Your task to perform on an android device: check the backup settings in the google photos Image 0: 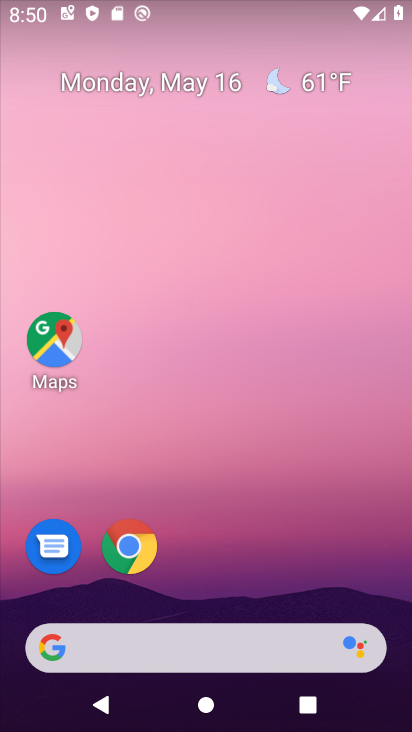
Step 0: drag from (297, 567) to (230, 129)
Your task to perform on an android device: check the backup settings in the google photos Image 1: 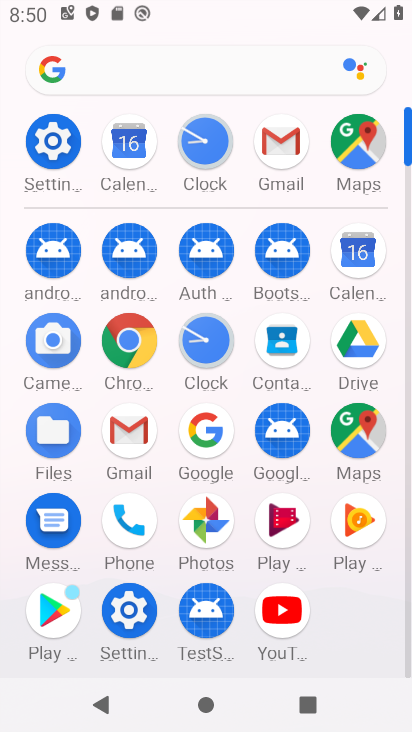
Step 1: click (214, 545)
Your task to perform on an android device: check the backup settings in the google photos Image 2: 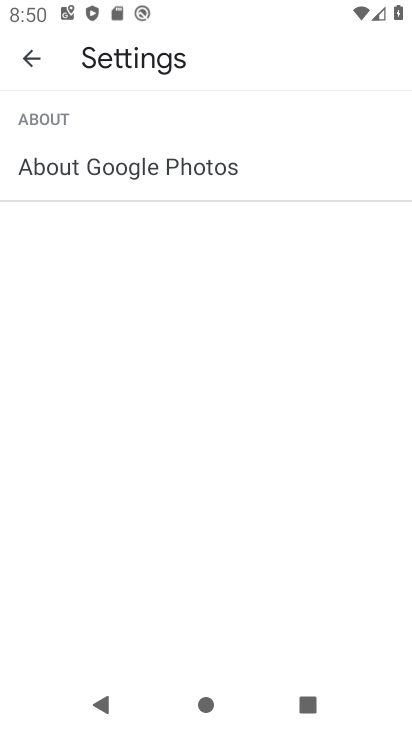
Step 2: click (31, 63)
Your task to perform on an android device: check the backup settings in the google photos Image 3: 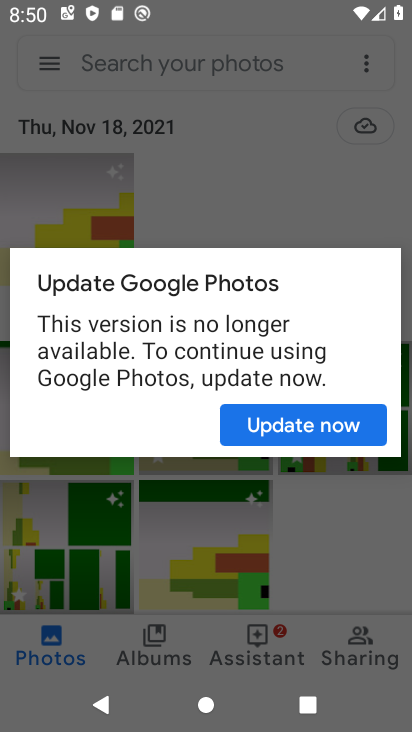
Step 3: click (297, 430)
Your task to perform on an android device: check the backup settings in the google photos Image 4: 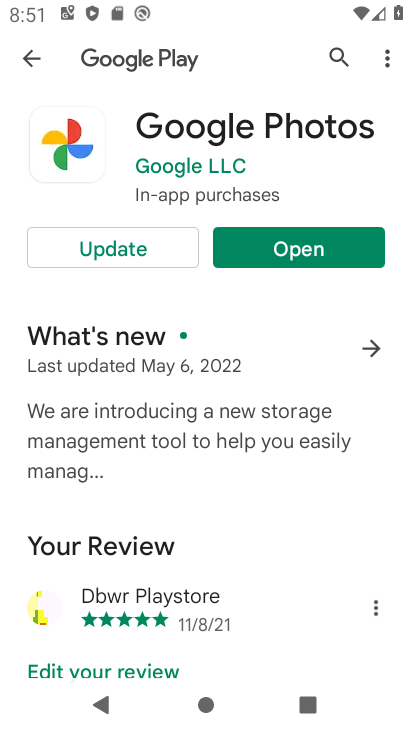
Step 4: click (263, 266)
Your task to perform on an android device: check the backup settings in the google photos Image 5: 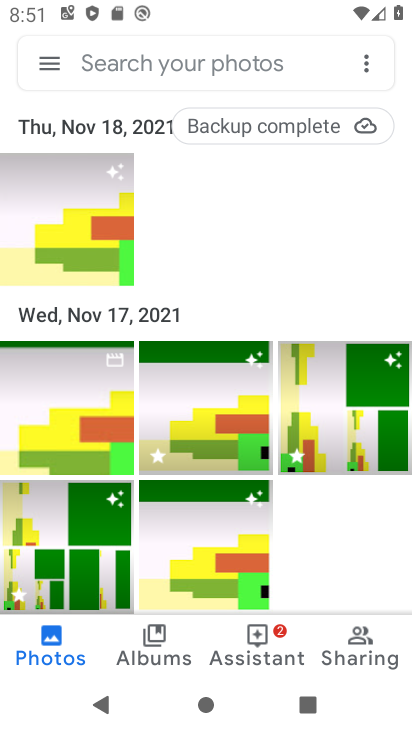
Step 5: click (54, 70)
Your task to perform on an android device: check the backup settings in the google photos Image 6: 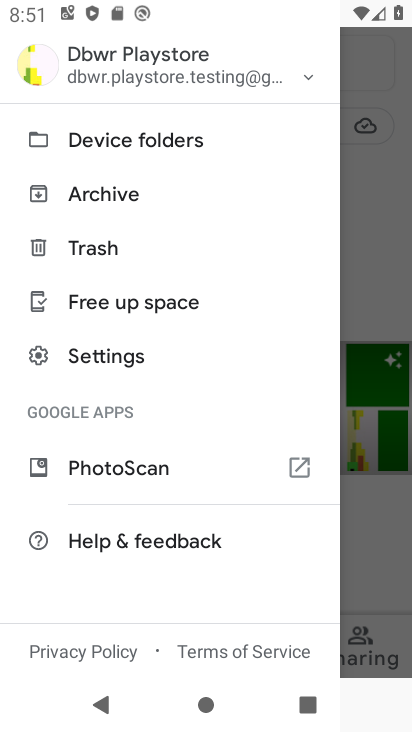
Step 6: click (117, 358)
Your task to perform on an android device: check the backup settings in the google photos Image 7: 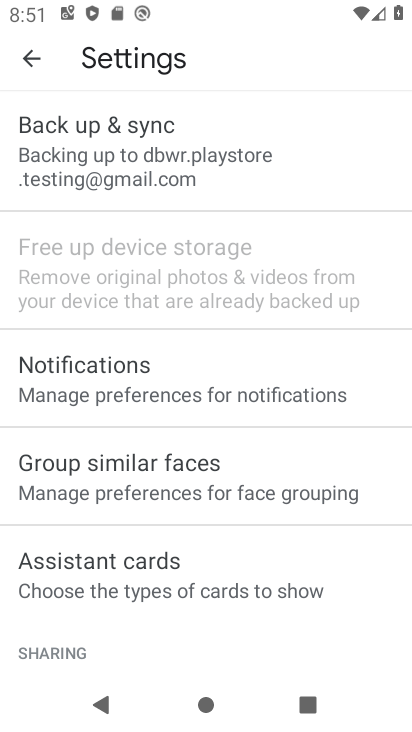
Step 7: click (77, 152)
Your task to perform on an android device: check the backup settings in the google photos Image 8: 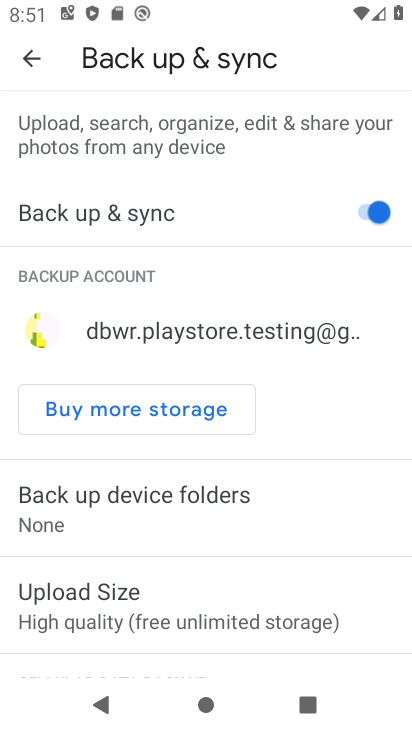
Step 8: task complete